Your task to perform on an android device: Go to accessibility settings Image 0: 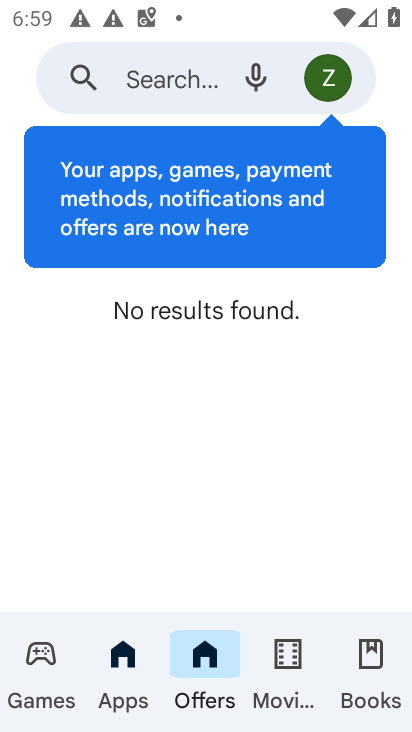
Step 0: press home button
Your task to perform on an android device: Go to accessibility settings Image 1: 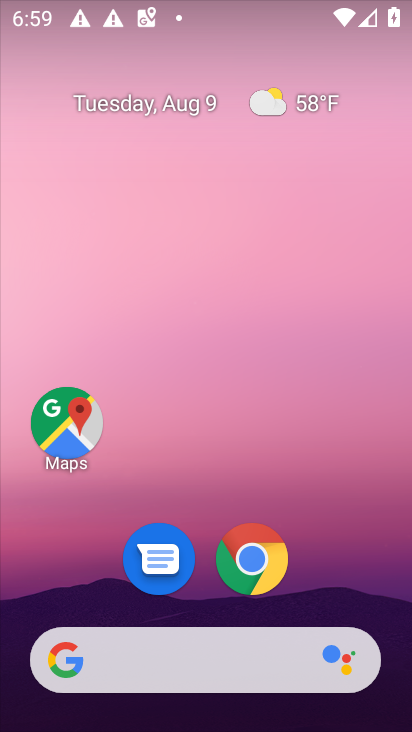
Step 1: drag from (202, 570) to (195, 109)
Your task to perform on an android device: Go to accessibility settings Image 2: 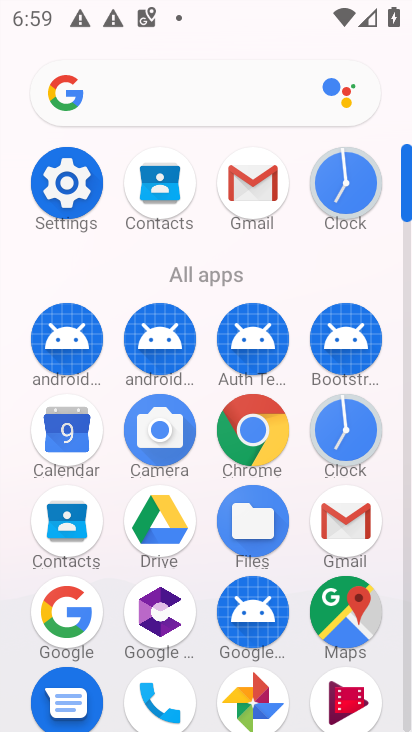
Step 2: click (68, 181)
Your task to perform on an android device: Go to accessibility settings Image 3: 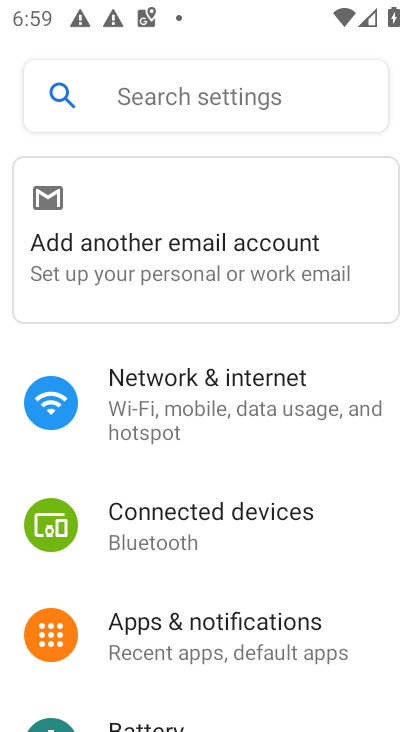
Step 3: drag from (205, 482) to (133, 56)
Your task to perform on an android device: Go to accessibility settings Image 4: 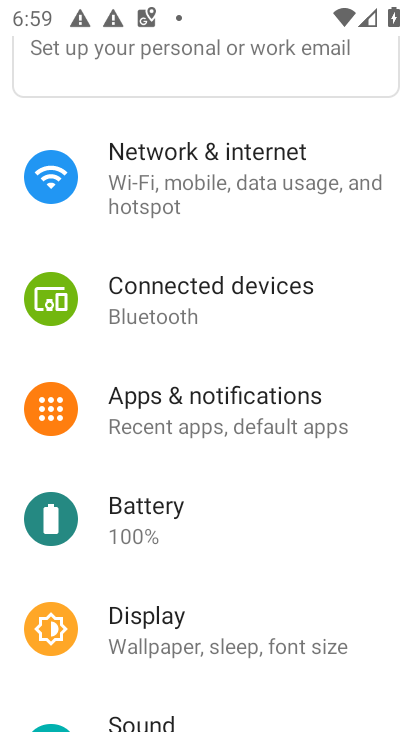
Step 4: drag from (240, 549) to (211, 223)
Your task to perform on an android device: Go to accessibility settings Image 5: 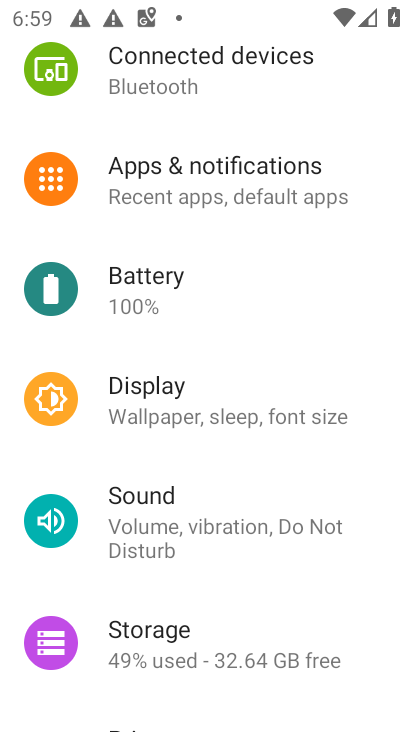
Step 5: drag from (222, 588) to (213, 247)
Your task to perform on an android device: Go to accessibility settings Image 6: 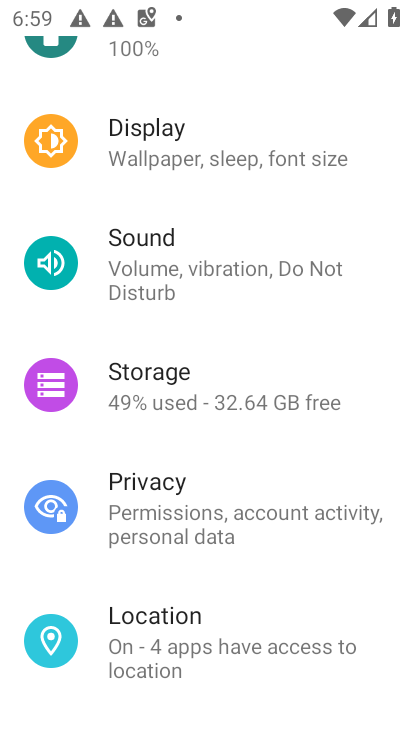
Step 6: drag from (233, 572) to (215, 132)
Your task to perform on an android device: Go to accessibility settings Image 7: 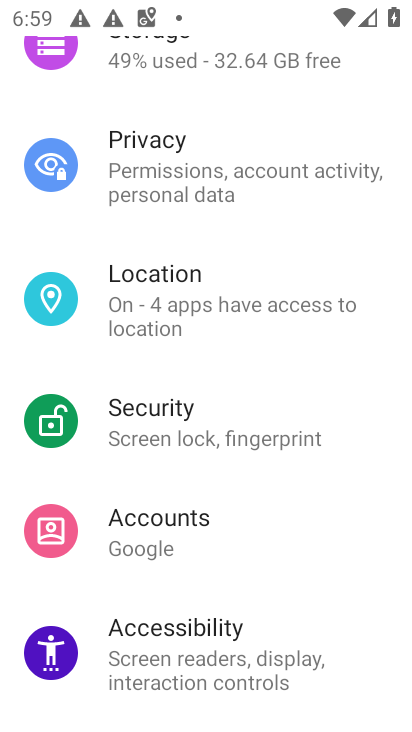
Step 7: click (139, 668)
Your task to perform on an android device: Go to accessibility settings Image 8: 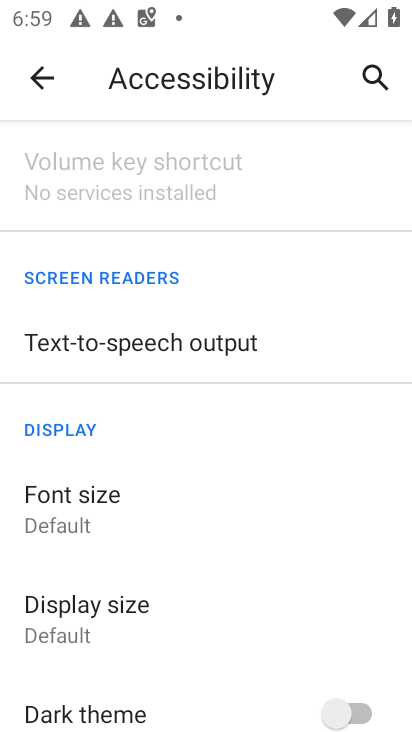
Step 8: task complete